Your task to perform on an android device: Go to accessibility settings Image 0: 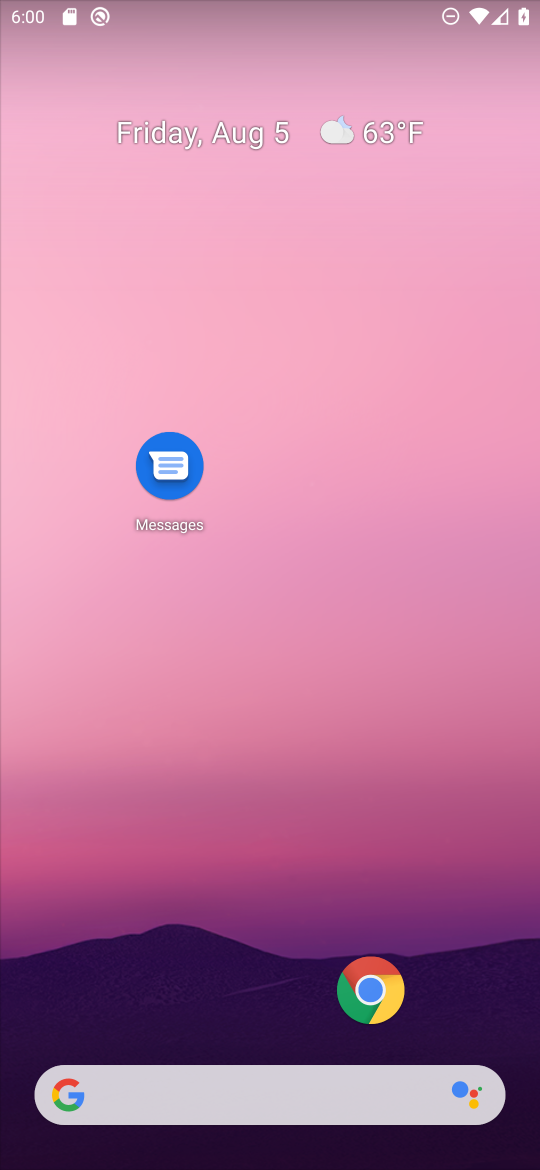
Step 0: drag from (220, 958) to (195, 682)
Your task to perform on an android device: Go to accessibility settings Image 1: 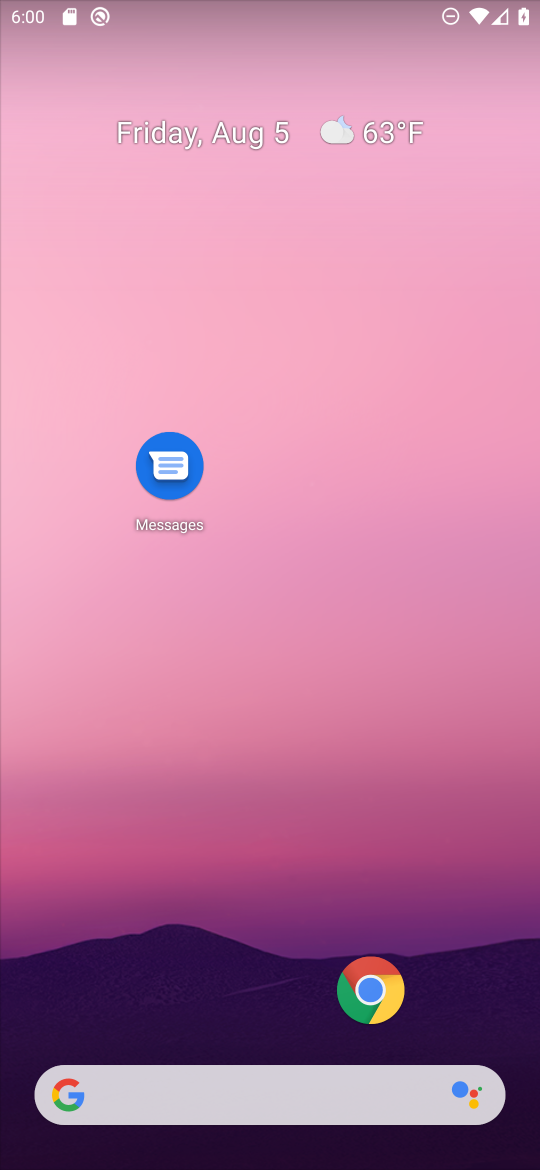
Step 1: drag from (283, 983) to (271, 625)
Your task to perform on an android device: Go to accessibility settings Image 2: 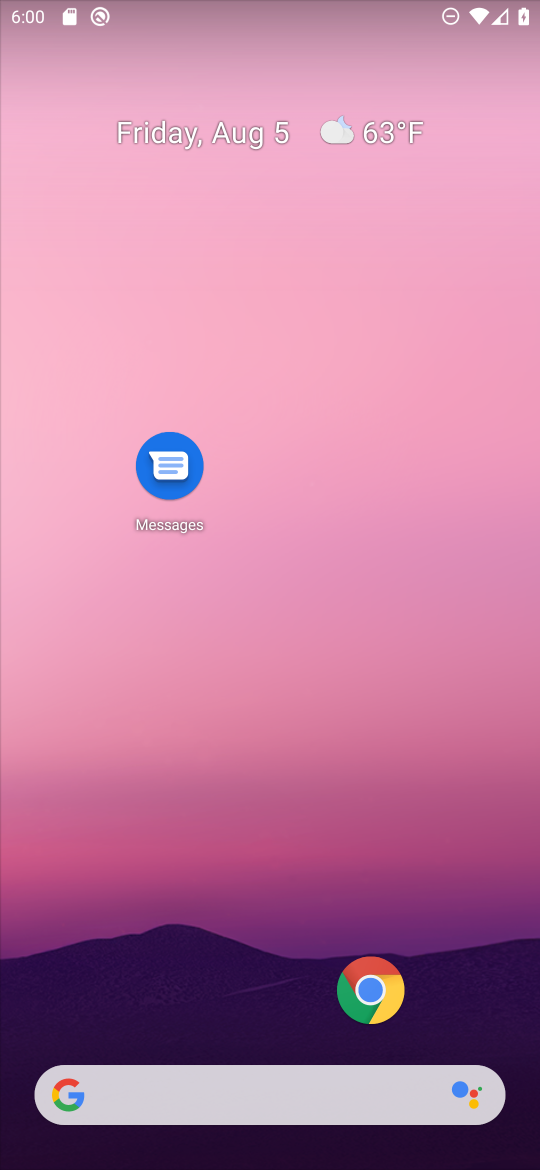
Step 2: drag from (302, 905) to (262, 431)
Your task to perform on an android device: Go to accessibility settings Image 3: 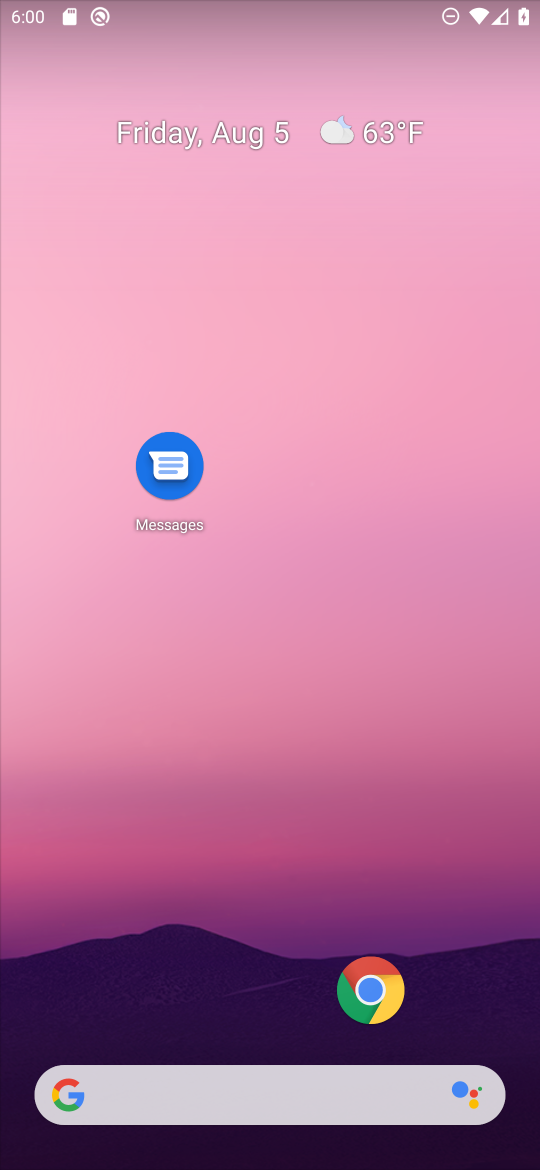
Step 3: drag from (302, 1044) to (277, 686)
Your task to perform on an android device: Go to accessibility settings Image 4: 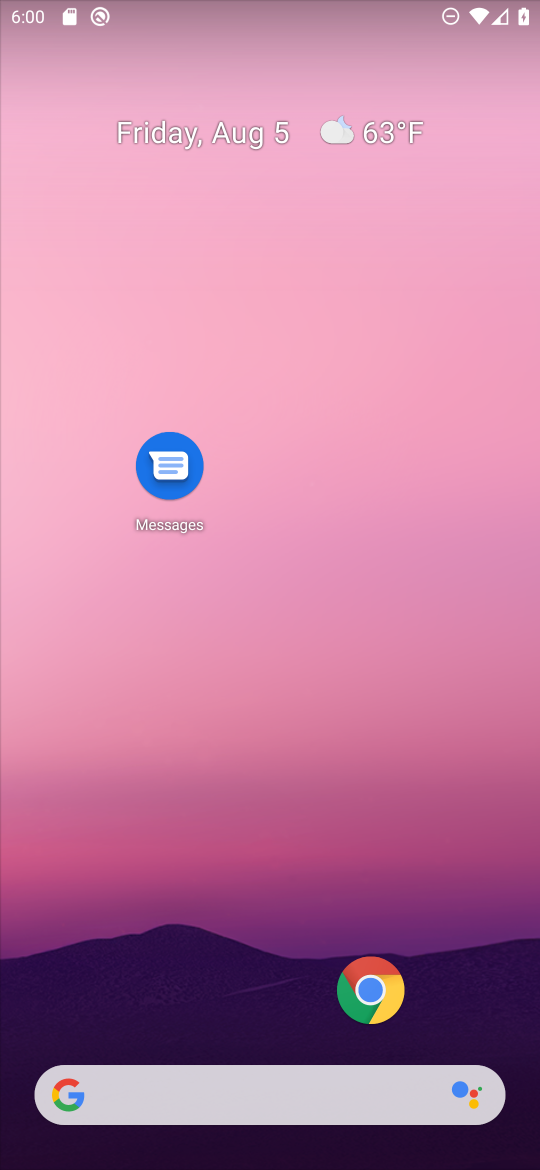
Step 4: drag from (244, 892) to (240, 547)
Your task to perform on an android device: Go to accessibility settings Image 5: 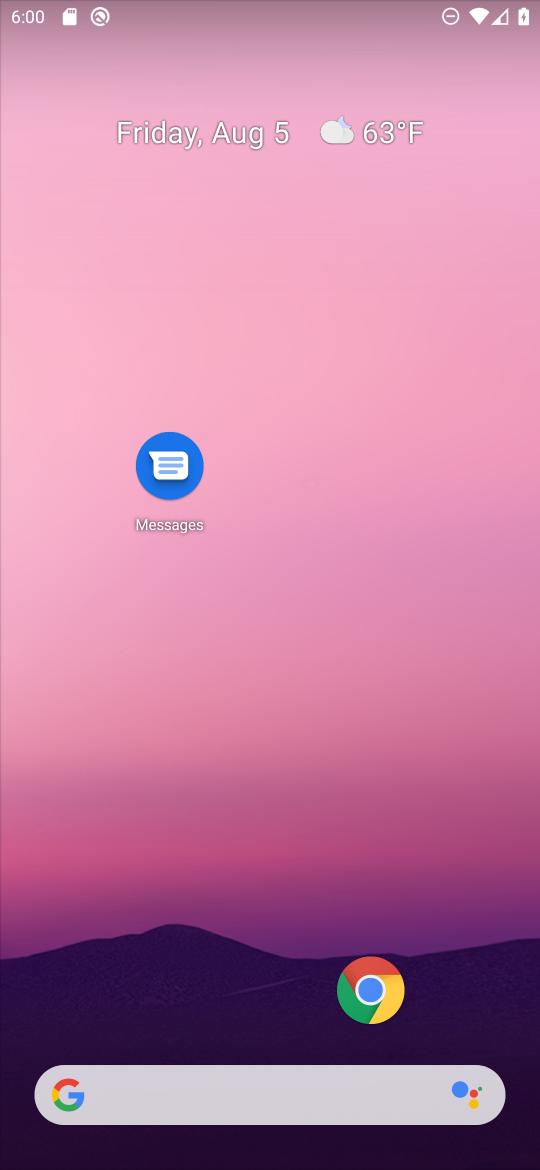
Step 5: drag from (211, 823) to (205, 297)
Your task to perform on an android device: Go to accessibility settings Image 6: 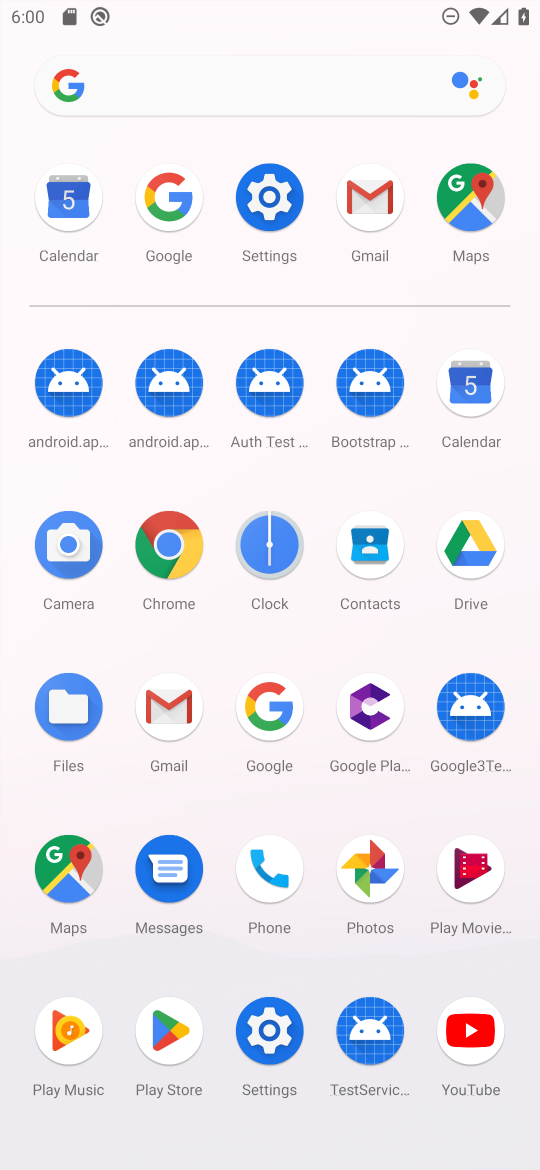
Step 6: click (258, 1022)
Your task to perform on an android device: Go to accessibility settings Image 7: 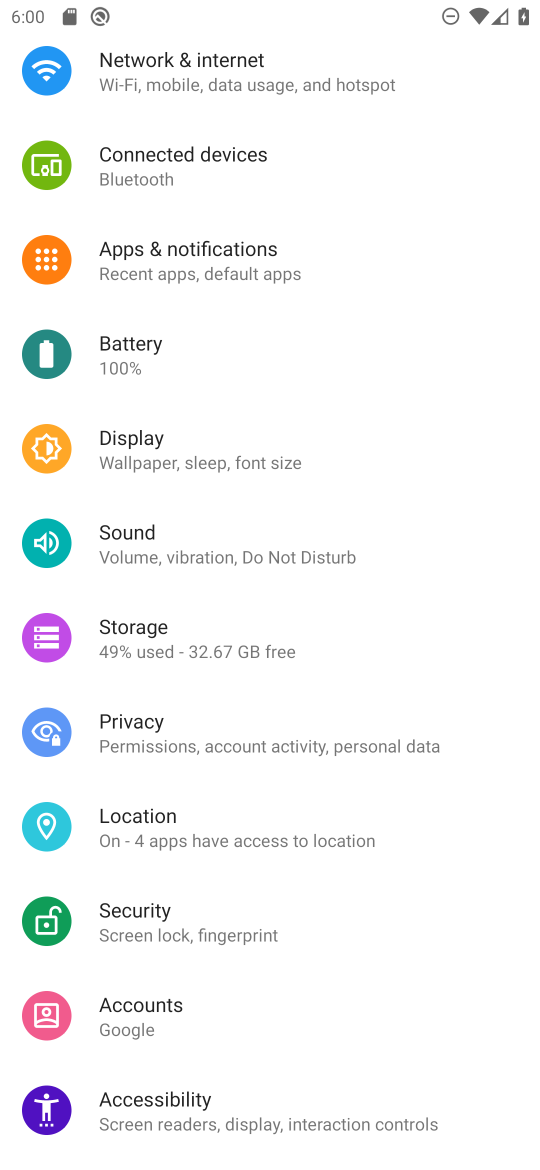
Step 7: click (151, 1096)
Your task to perform on an android device: Go to accessibility settings Image 8: 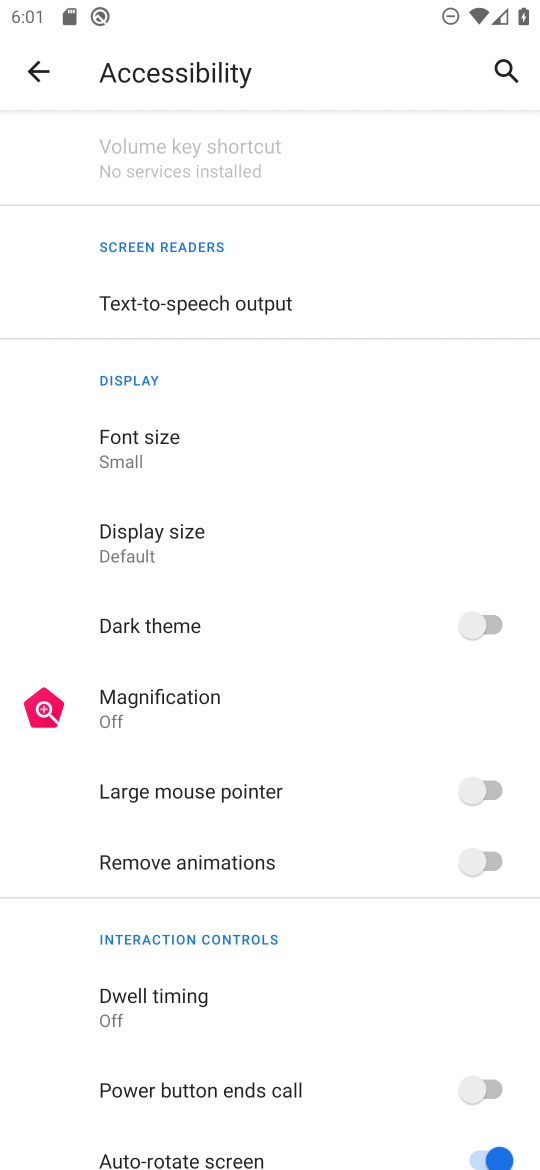
Step 8: task complete